Your task to perform on an android device: Go to wifi settings Image 0: 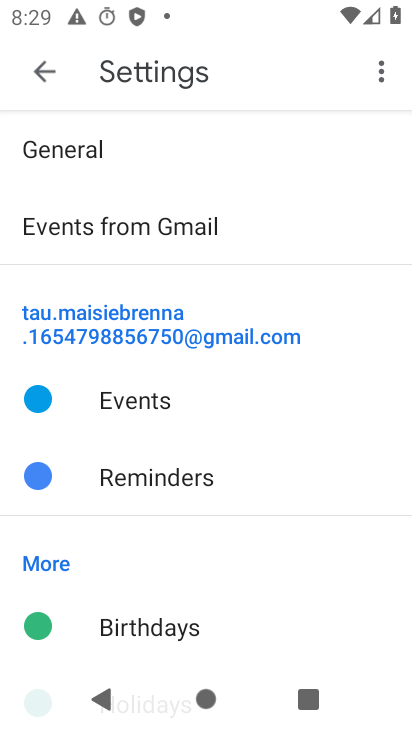
Step 0: press home button
Your task to perform on an android device: Go to wifi settings Image 1: 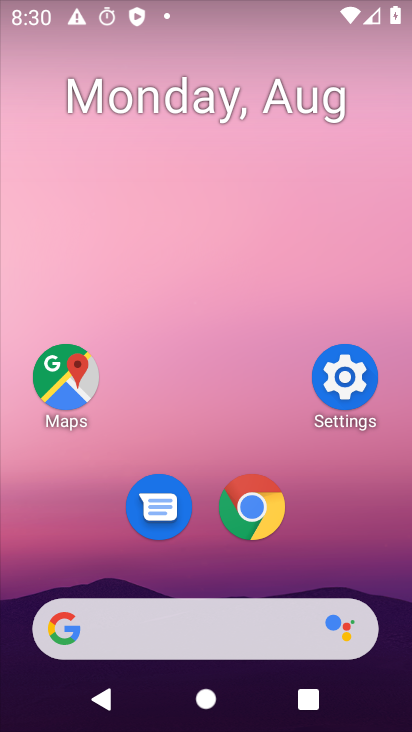
Step 1: click (346, 385)
Your task to perform on an android device: Go to wifi settings Image 2: 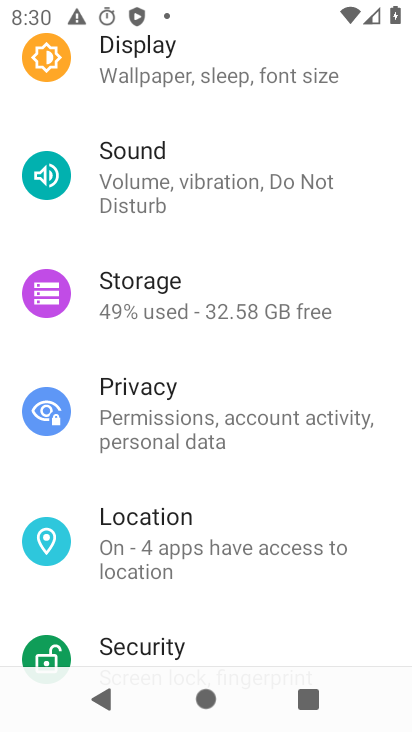
Step 2: drag from (271, 237) to (221, 648)
Your task to perform on an android device: Go to wifi settings Image 3: 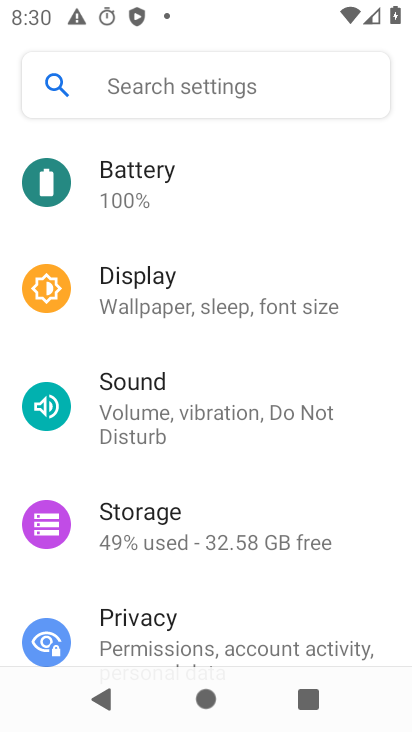
Step 3: drag from (239, 231) to (269, 685)
Your task to perform on an android device: Go to wifi settings Image 4: 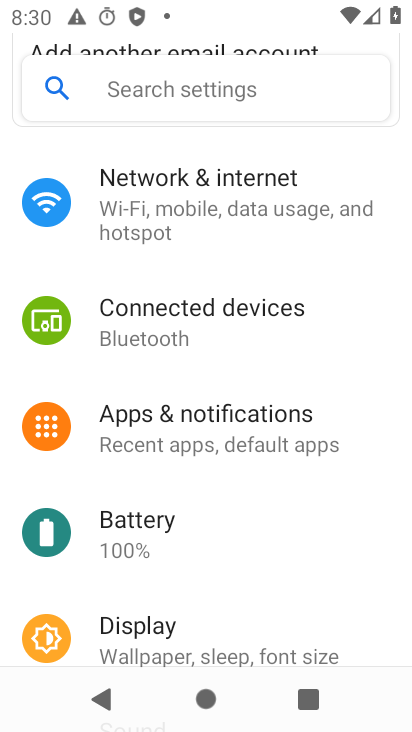
Step 4: drag from (289, 259) to (327, 728)
Your task to perform on an android device: Go to wifi settings Image 5: 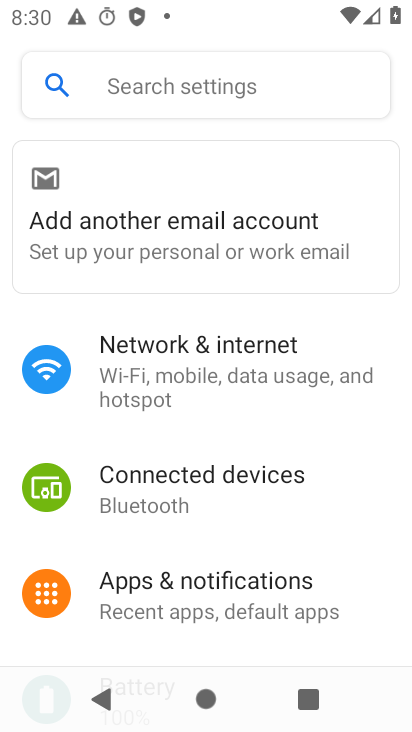
Step 5: click (242, 354)
Your task to perform on an android device: Go to wifi settings Image 6: 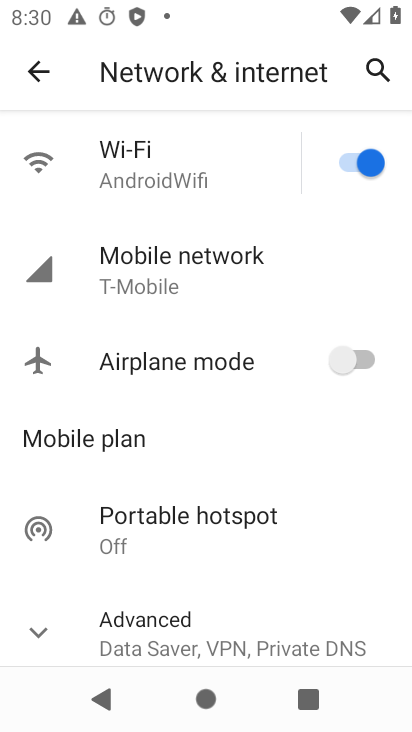
Step 6: click (128, 161)
Your task to perform on an android device: Go to wifi settings Image 7: 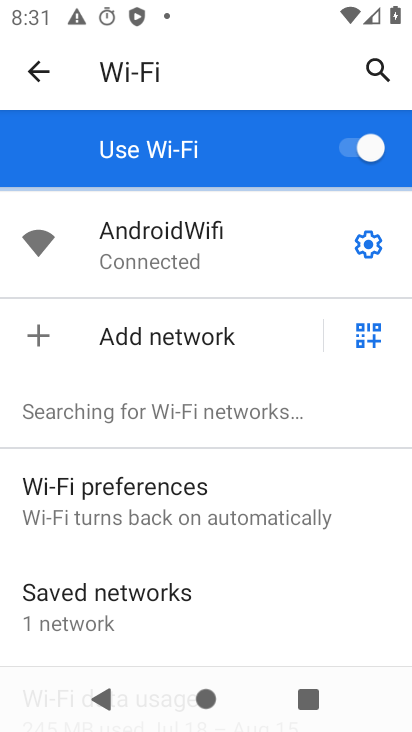
Step 7: task complete